Your task to perform on an android device: Do I have any events this weekend? Image 0: 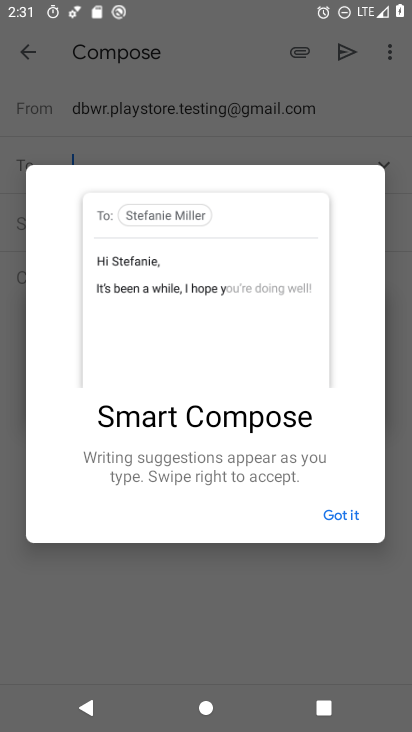
Step 0: press home button
Your task to perform on an android device: Do I have any events this weekend? Image 1: 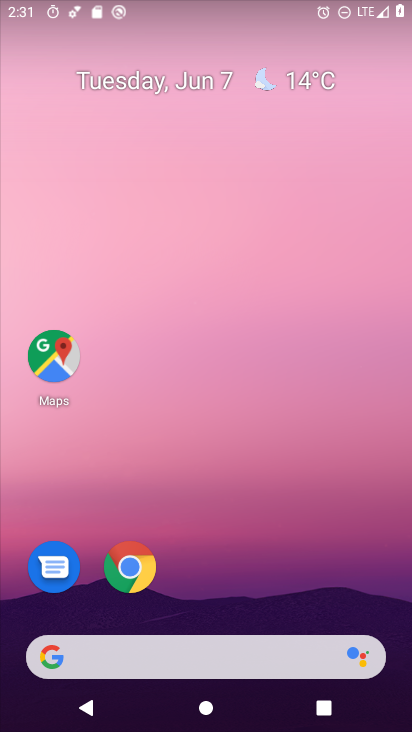
Step 1: drag from (332, 605) to (386, 91)
Your task to perform on an android device: Do I have any events this weekend? Image 2: 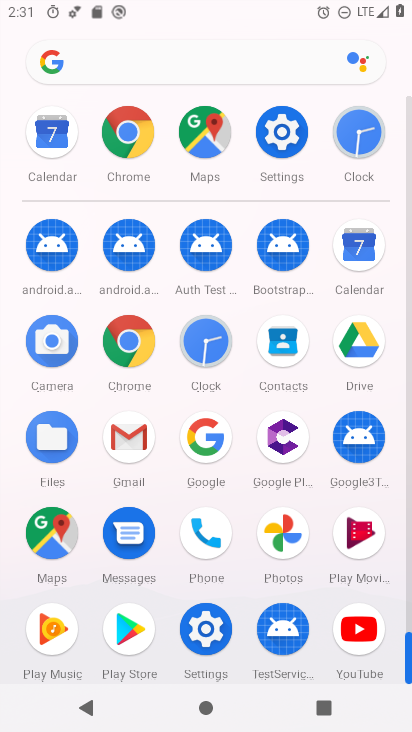
Step 2: click (360, 253)
Your task to perform on an android device: Do I have any events this weekend? Image 3: 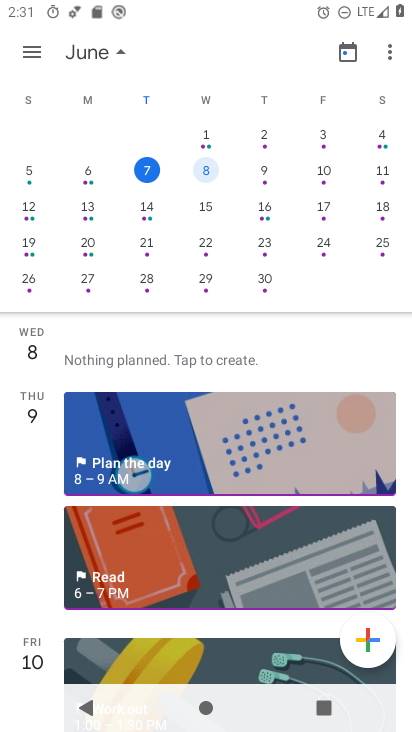
Step 3: click (326, 170)
Your task to perform on an android device: Do I have any events this weekend? Image 4: 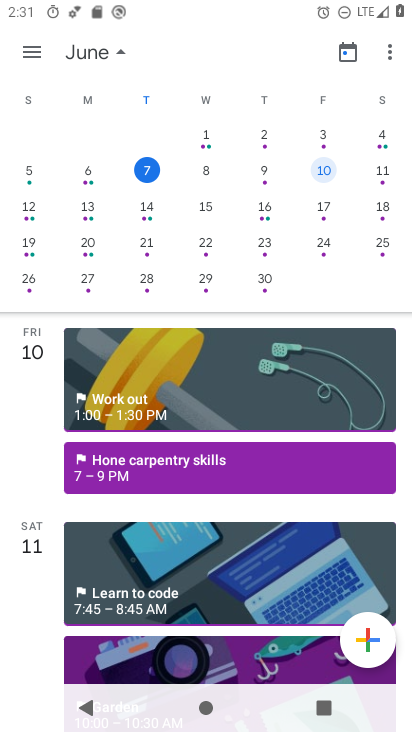
Step 4: task complete